Your task to perform on an android device: change the clock display to show seconds Image 0: 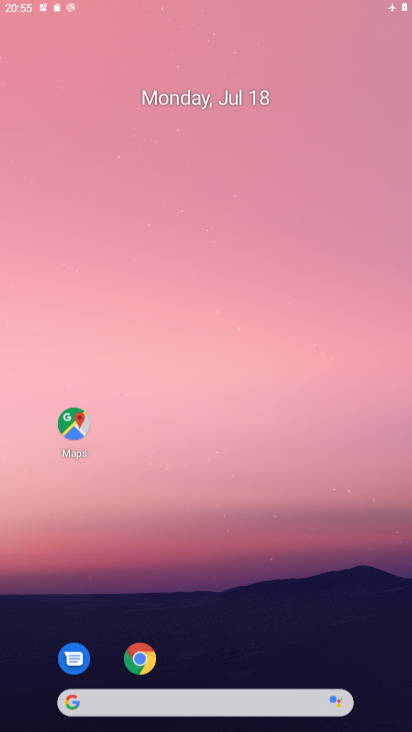
Step 0: drag from (231, 57) to (229, 17)
Your task to perform on an android device: change the clock display to show seconds Image 1: 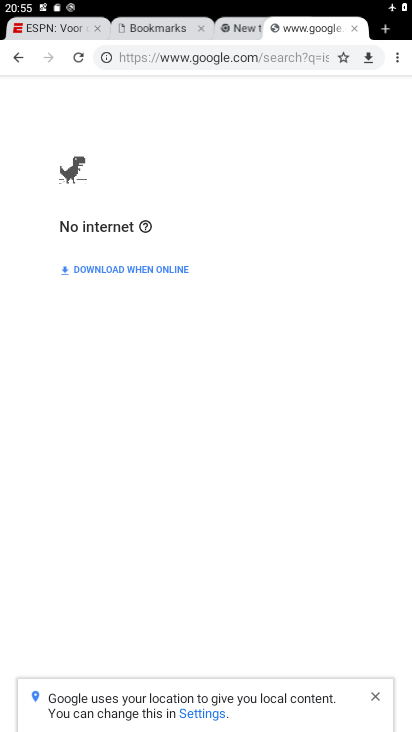
Step 1: drag from (196, 418) to (221, 4)
Your task to perform on an android device: change the clock display to show seconds Image 2: 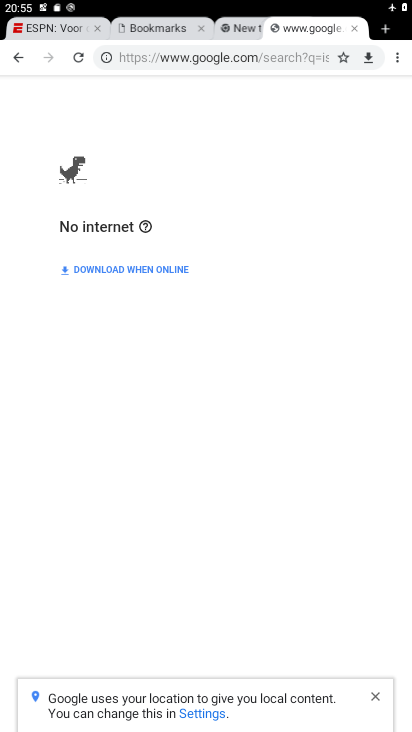
Step 2: press back button
Your task to perform on an android device: change the clock display to show seconds Image 3: 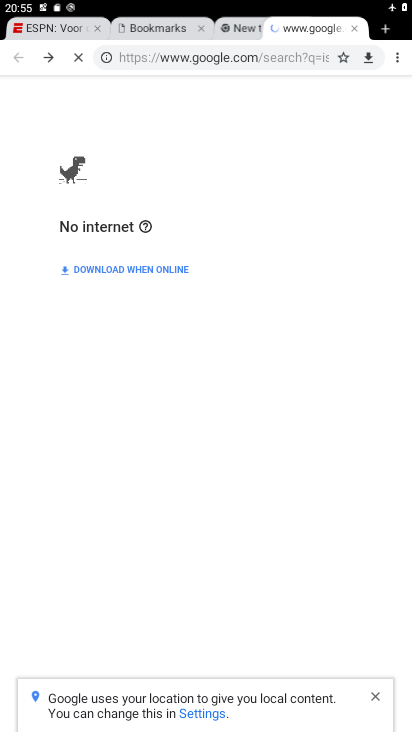
Step 3: press back button
Your task to perform on an android device: change the clock display to show seconds Image 4: 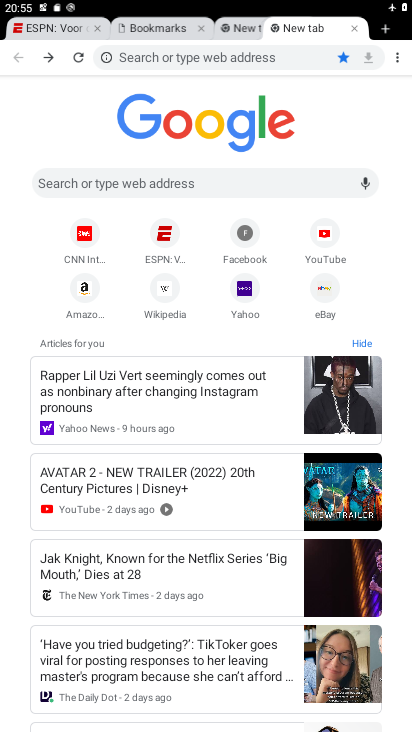
Step 4: press enter
Your task to perform on an android device: change the clock display to show seconds Image 5: 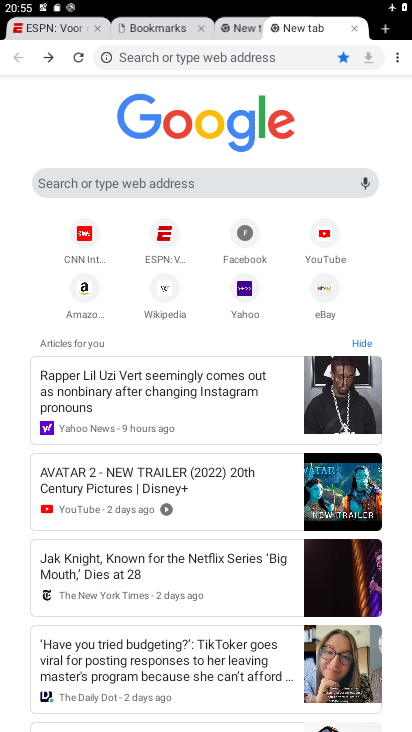
Step 5: press home button
Your task to perform on an android device: change the clock display to show seconds Image 6: 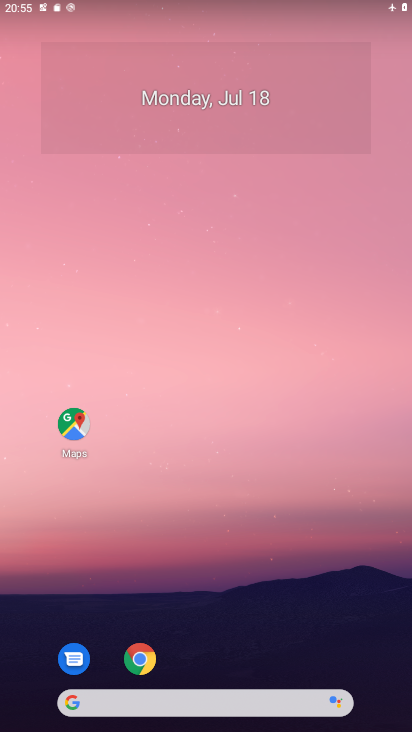
Step 6: drag from (245, 692) to (212, 195)
Your task to perform on an android device: change the clock display to show seconds Image 7: 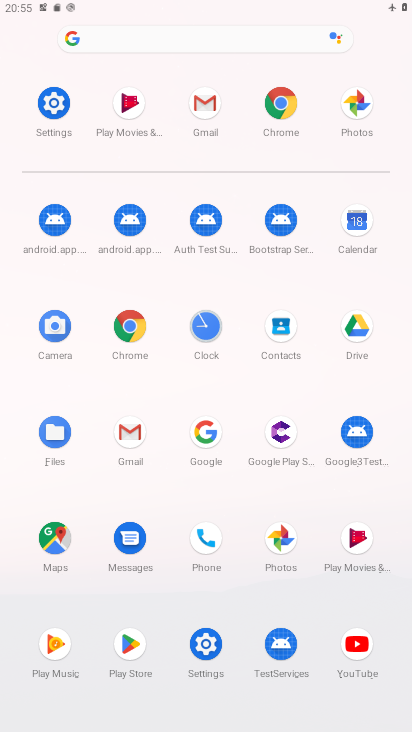
Step 7: click (197, 336)
Your task to perform on an android device: change the clock display to show seconds Image 8: 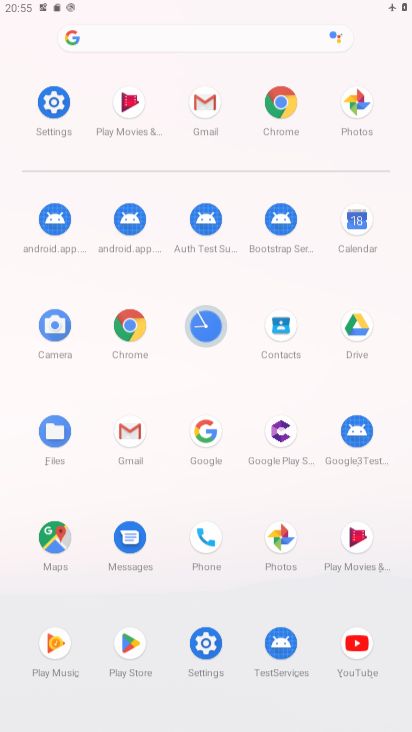
Step 8: click (200, 335)
Your task to perform on an android device: change the clock display to show seconds Image 9: 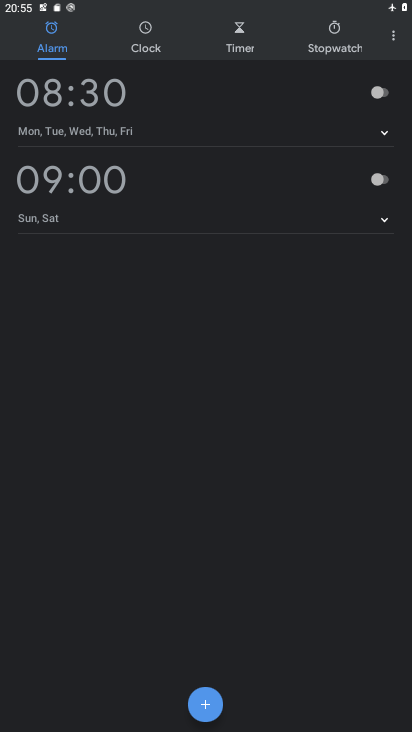
Step 9: click (393, 39)
Your task to perform on an android device: change the clock display to show seconds Image 10: 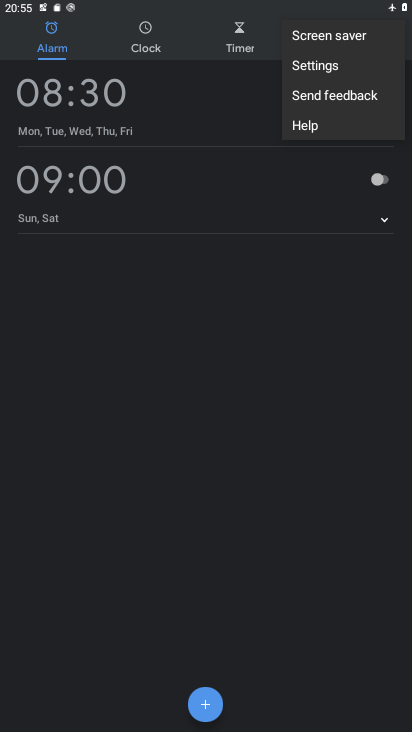
Step 10: click (309, 74)
Your task to perform on an android device: change the clock display to show seconds Image 11: 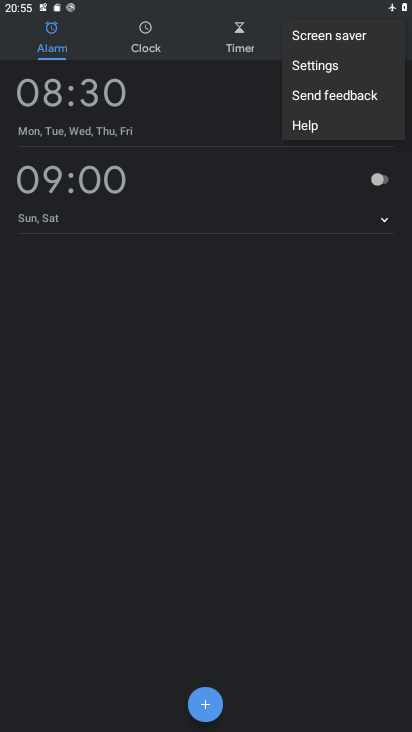
Step 11: click (309, 74)
Your task to perform on an android device: change the clock display to show seconds Image 12: 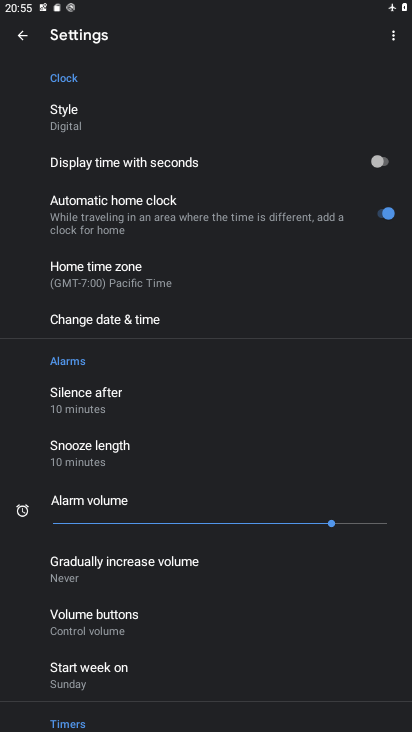
Step 12: click (380, 164)
Your task to perform on an android device: change the clock display to show seconds Image 13: 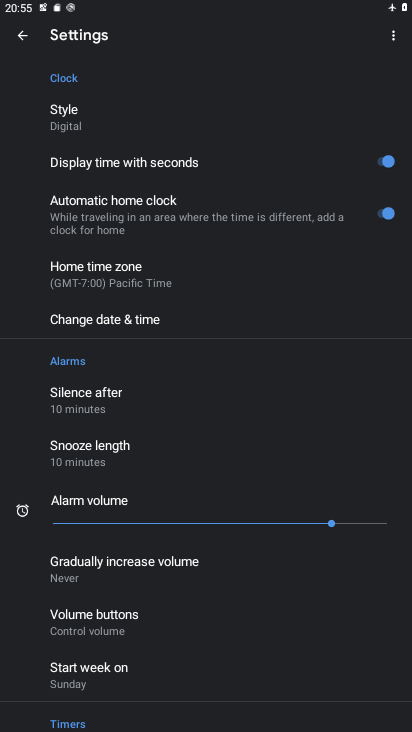
Step 13: task complete